Your task to perform on an android device: delete location history Image 0: 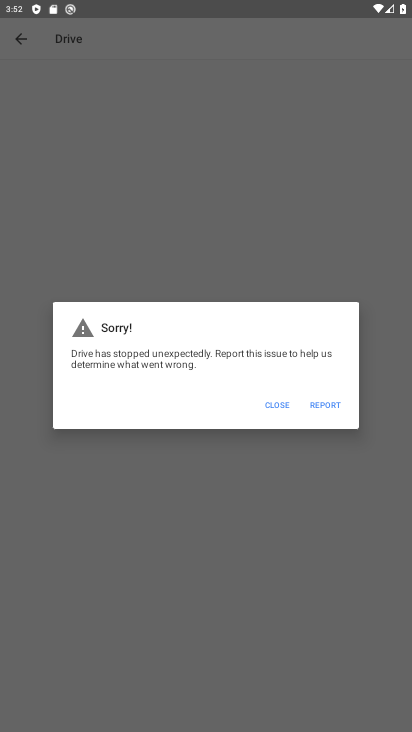
Step 0: press back button
Your task to perform on an android device: delete location history Image 1: 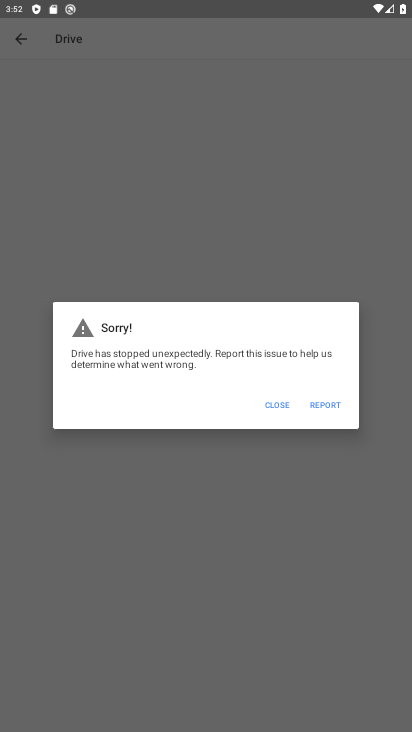
Step 1: press home button
Your task to perform on an android device: delete location history Image 2: 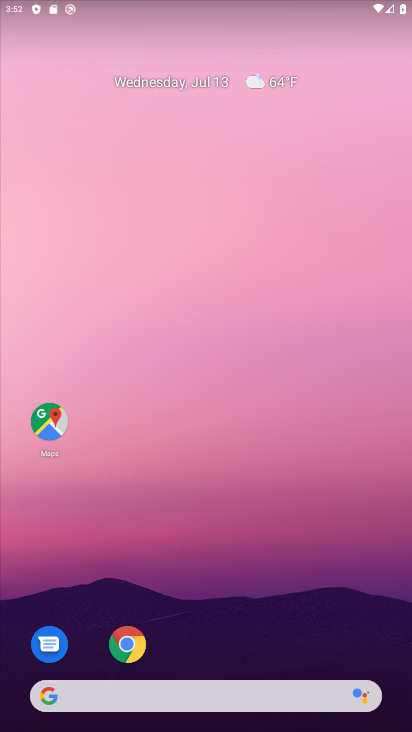
Step 2: click (54, 415)
Your task to perform on an android device: delete location history Image 3: 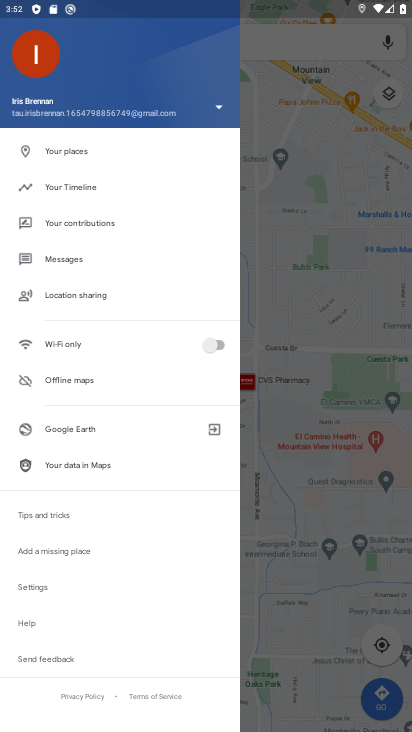
Step 3: click (63, 183)
Your task to perform on an android device: delete location history Image 4: 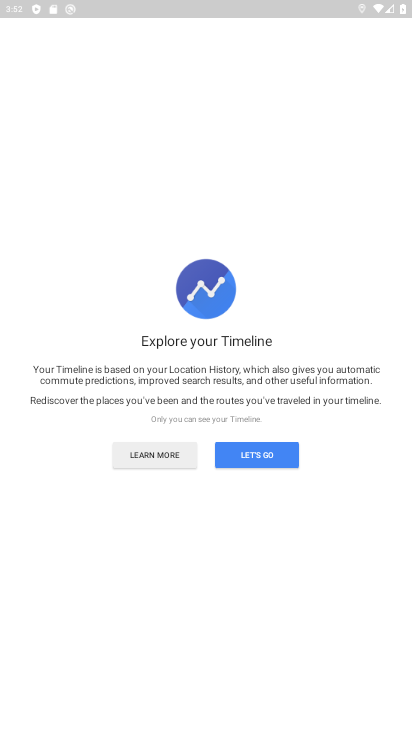
Step 4: click (255, 463)
Your task to perform on an android device: delete location history Image 5: 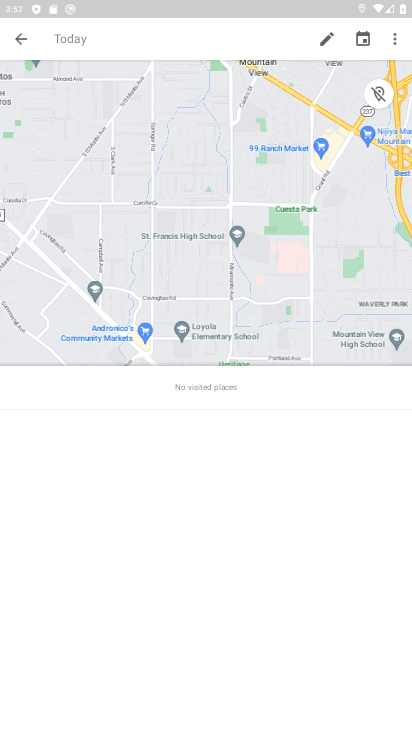
Step 5: click (399, 40)
Your task to perform on an android device: delete location history Image 6: 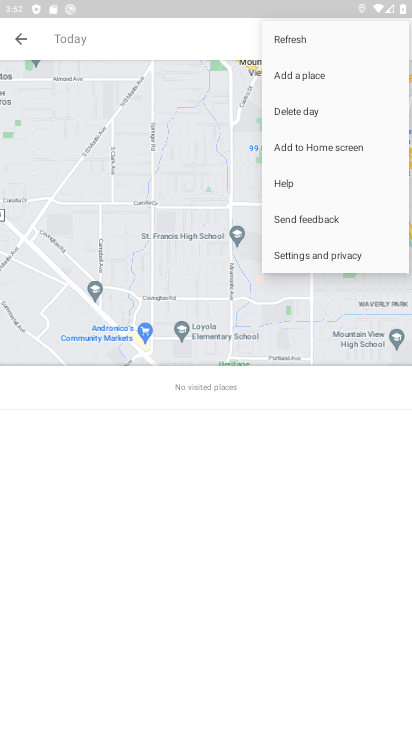
Step 6: click (301, 255)
Your task to perform on an android device: delete location history Image 7: 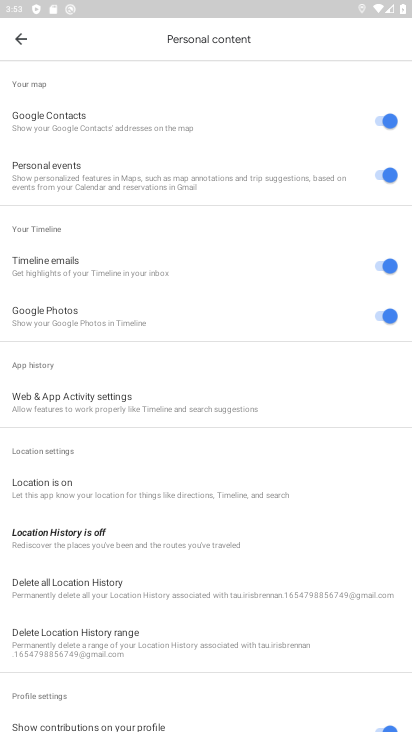
Step 7: click (84, 584)
Your task to perform on an android device: delete location history Image 8: 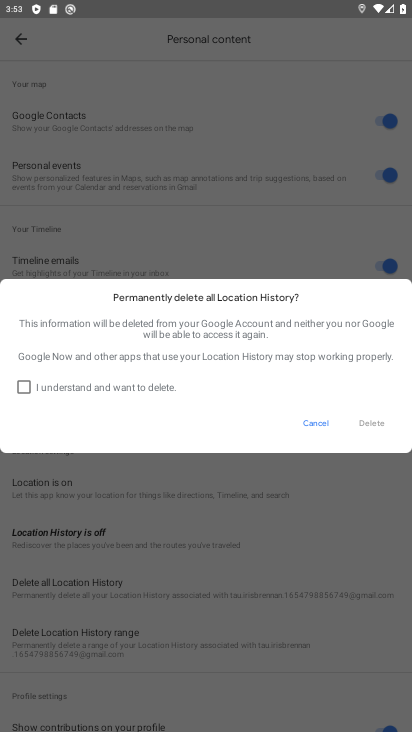
Step 8: click (110, 383)
Your task to perform on an android device: delete location history Image 9: 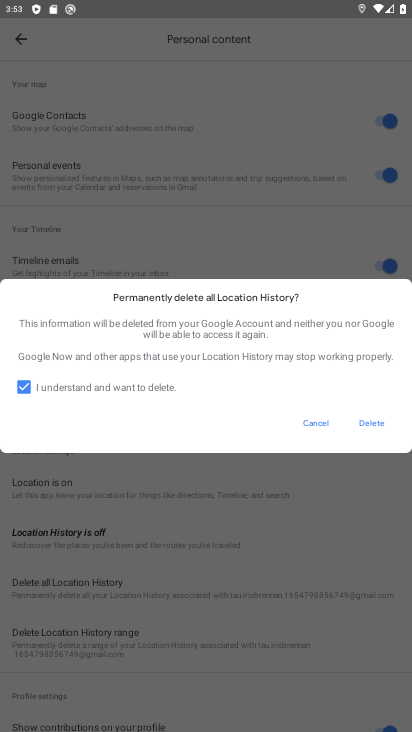
Step 9: click (369, 419)
Your task to perform on an android device: delete location history Image 10: 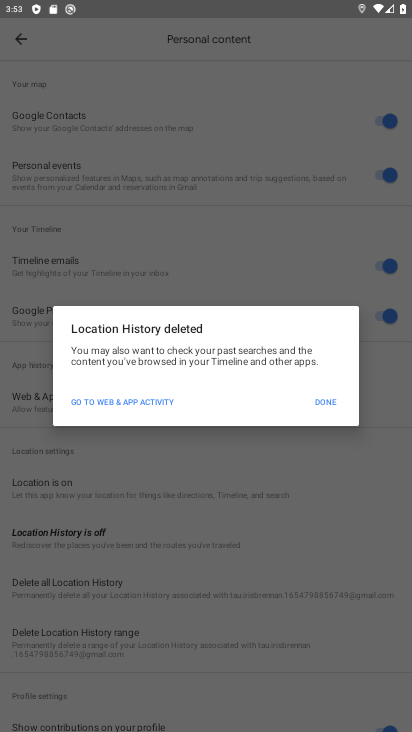
Step 10: click (323, 405)
Your task to perform on an android device: delete location history Image 11: 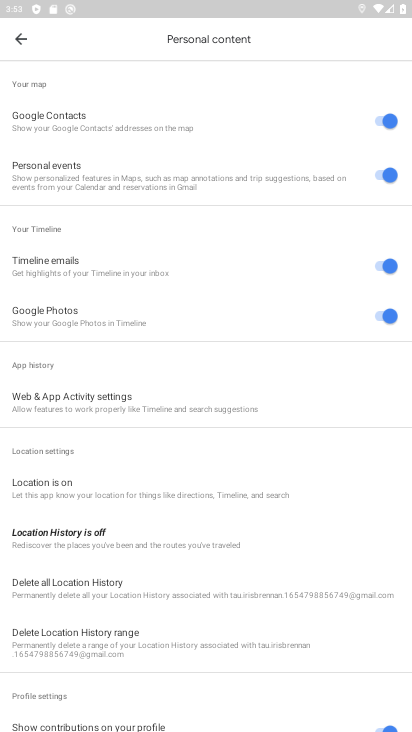
Step 11: task complete